Your task to perform on an android device: set an alarm Image 0: 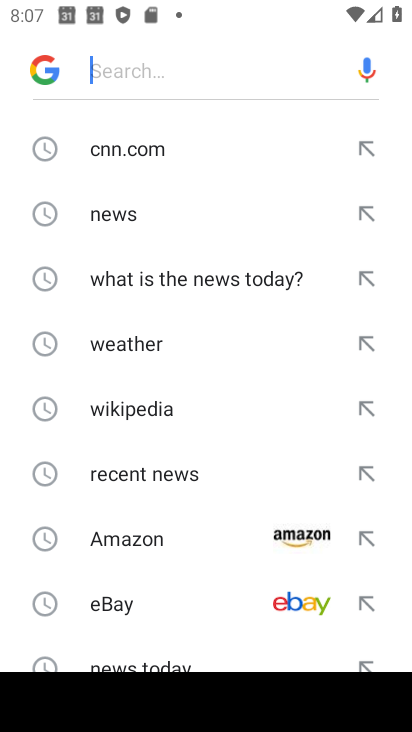
Step 0: press home button
Your task to perform on an android device: set an alarm Image 1: 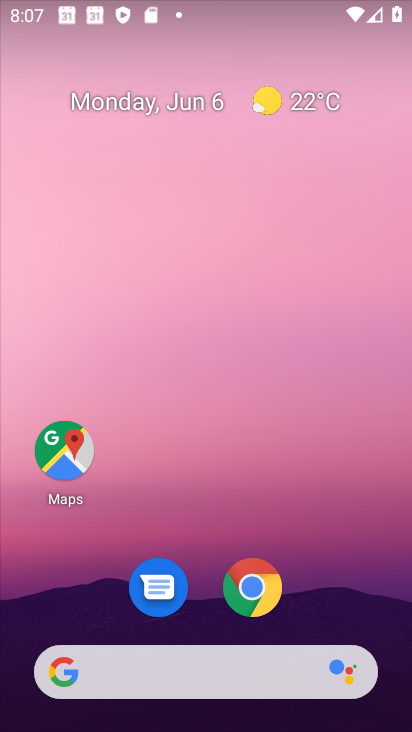
Step 1: drag from (211, 650) to (199, 247)
Your task to perform on an android device: set an alarm Image 2: 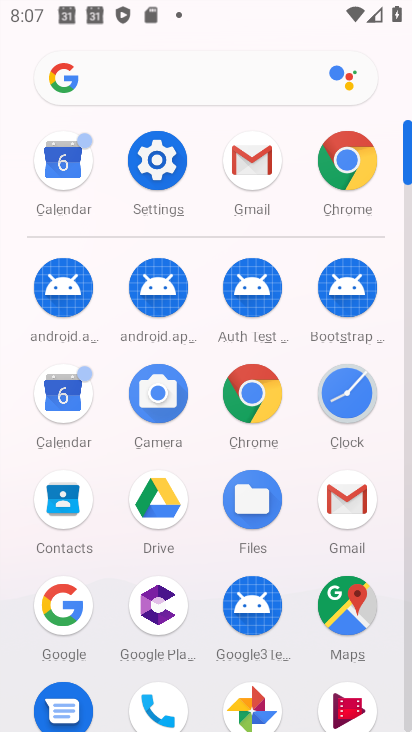
Step 2: click (377, 391)
Your task to perform on an android device: set an alarm Image 3: 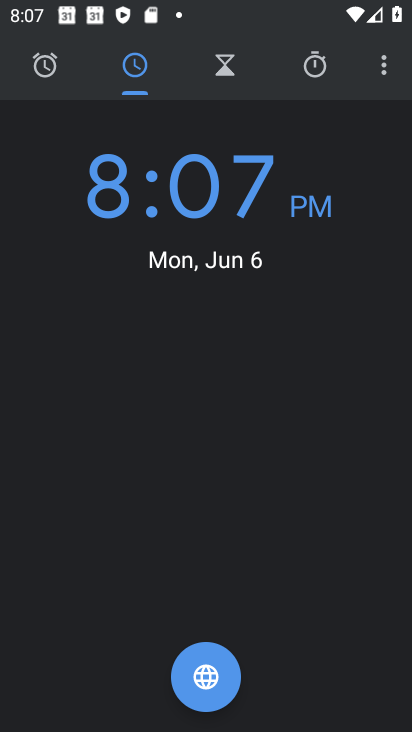
Step 3: click (47, 76)
Your task to perform on an android device: set an alarm Image 4: 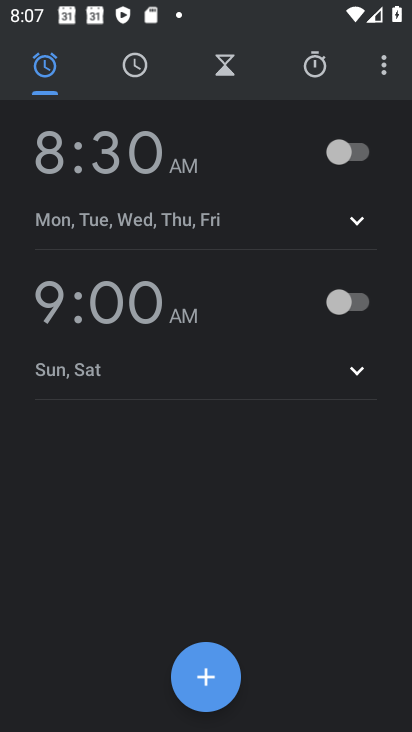
Step 4: click (348, 144)
Your task to perform on an android device: set an alarm Image 5: 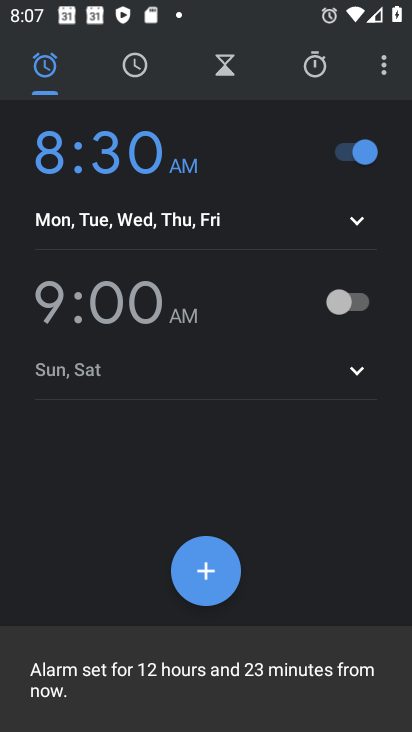
Step 5: task complete